Your task to perform on an android device: Search for bose quietcomfort 35 on walmart, select the first entry, and add it to the cart. Image 0: 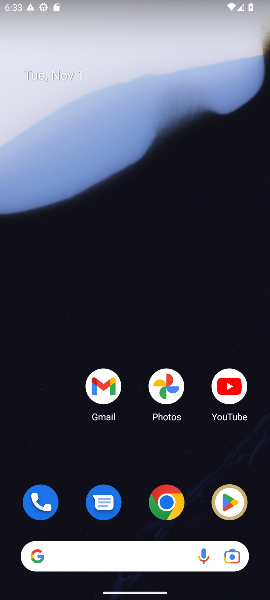
Step 0: click (105, 548)
Your task to perform on an android device: Search for bose quietcomfort 35 on walmart, select the first entry, and add it to the cart. Image 1: 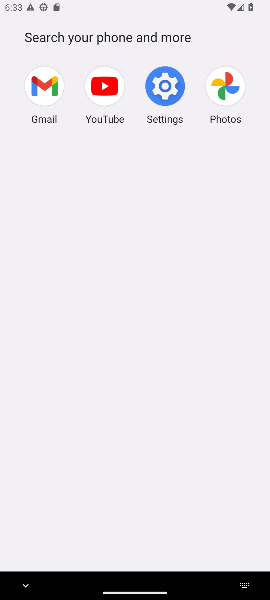
Step 1: type "google"
Your task to perform on an android device: Search for bose quietcomfort 35 on walmart, select the first entry, and add it to the cart. Image 2: 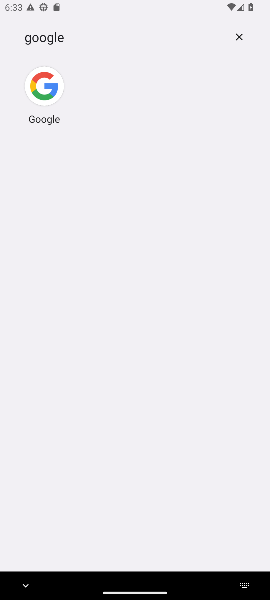
Step 2: click (40, 86)
Your task to perform on an android device: Search for bose quietcomfort 35 on walmart, select the first entry, and add it to the cart. Image 3: 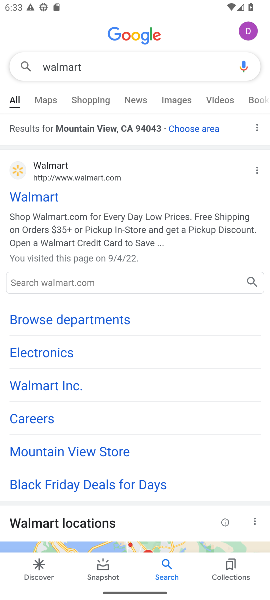
Step 3: click (94, 65)
Your task to perform on an android device: Search for bose quietcomfort 35 on walmart, select the first entry, and add it to the cart. Image 4: 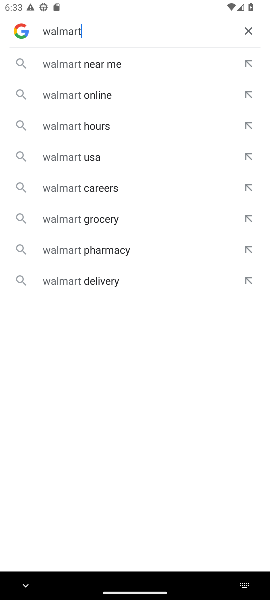
Step 4: click (248, 30)
Your task to perform on an android device: Search for bose quietcomfort 35 on walmart, select the first entry, and add it to the cart. Image 5: 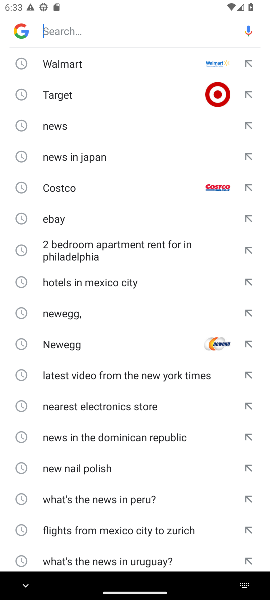
Step 5: click (45, 64)
Your task to perform on an android device: Search for bose quietcomfort 35 on walmart, select the first entry, and add it to the cart. Image 6: 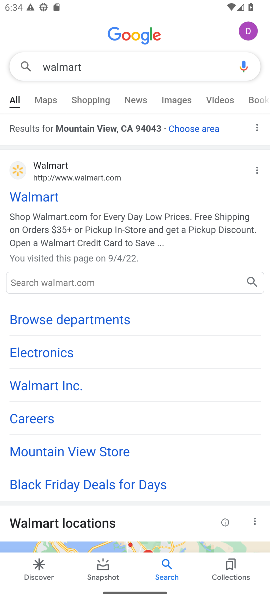
Step 6: click (24, 195)
Your task to perform on an android device: Search for bose quietcomfort 35 on walmart, select the first entry, and add it to the cart. Image 7: 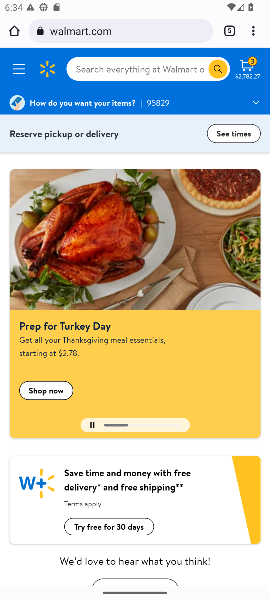
Step 7: click (88, 64)
Your task to perform on an android device: Search for bose quietcomfort 35 on walmart, select the first entry, and add it to the cart. Image 8: 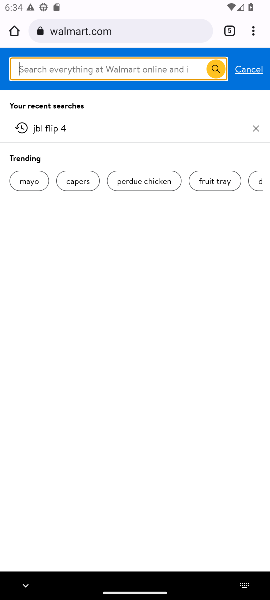
Step 8: type "bose quietcomfort 35"
Your task to perform on an android device: Search for bose quietcomfort 35 on walmart, select the first entry, and add it to the cart. Image 9: 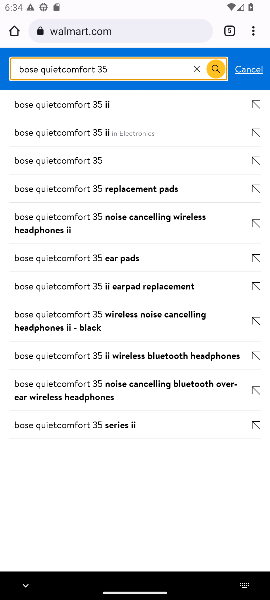
Step 9: click (215, 69)
Your task to perform on an android device: Search for bose quietcomfort 35 on walmart, select the first entry, and add it to the cart. Image 10: 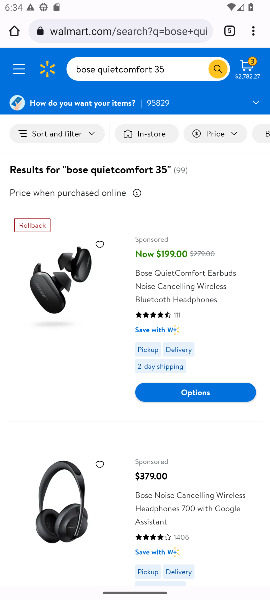
Step 10: click (197, 396)
Your task to perform on an android device: Search for bose quietcomfort 35 on walmart, select the first entry, and add it to the cart. Image 11: 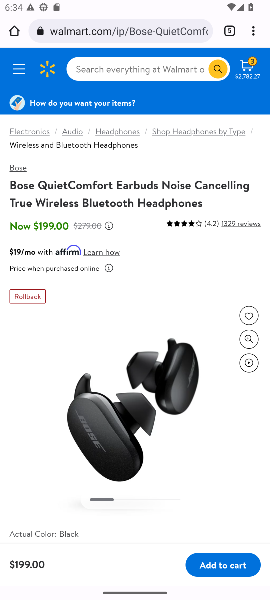
Step 11: click (215, 565)
Your task to perform on an android device: Search for bose quietcomfort 35 on walmart, select the first entry, and add it to the cart. Image 12: 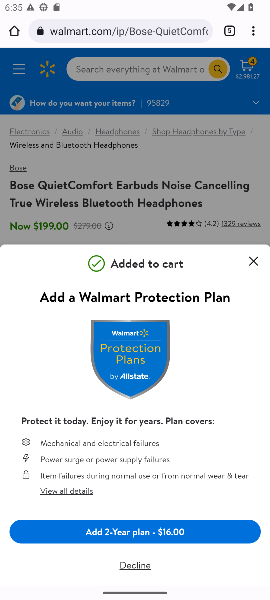
Step 12: click (254, 259)
Your task to perform on an android device: Search for bose quietcomfort 35 on walmart, select the first entry, and add it to the cart. Image 13: 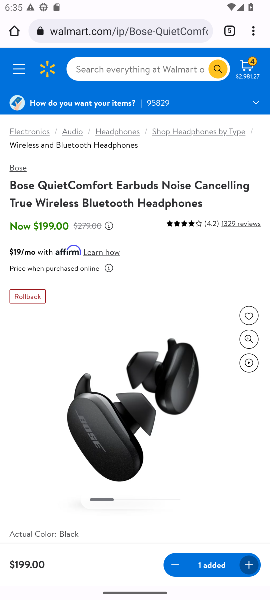
Step 13: task complete